Your task to perform on an android device: check out phone information Image 0: 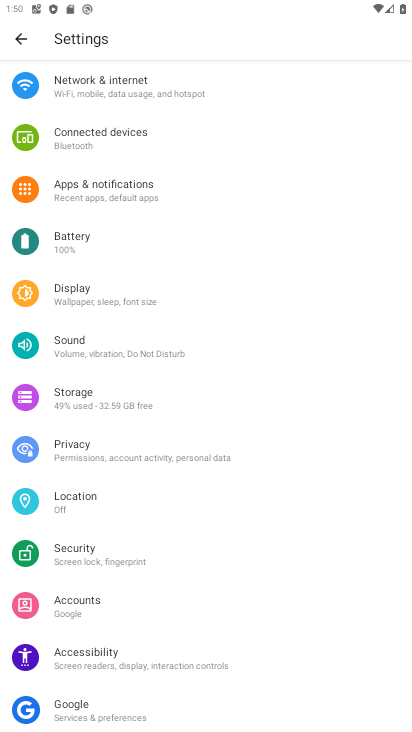
Step 0: drag from (153, 685) to (204, 185)
Your task to perform on an android device: check out phone information Image 1: 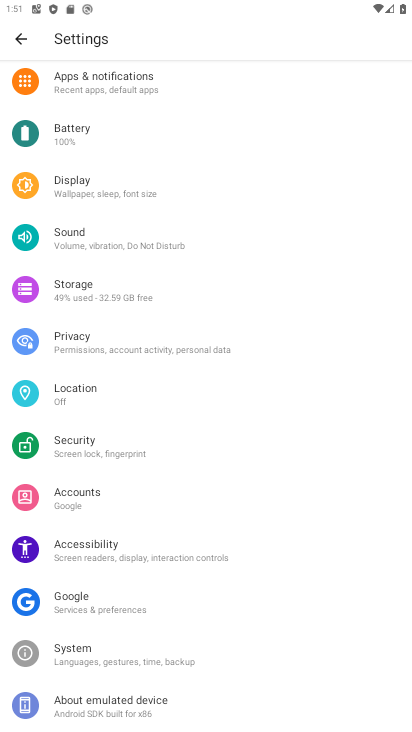
Step 1: click (118, 707)
Your task to perform on an android device: check out phone information Image 2: 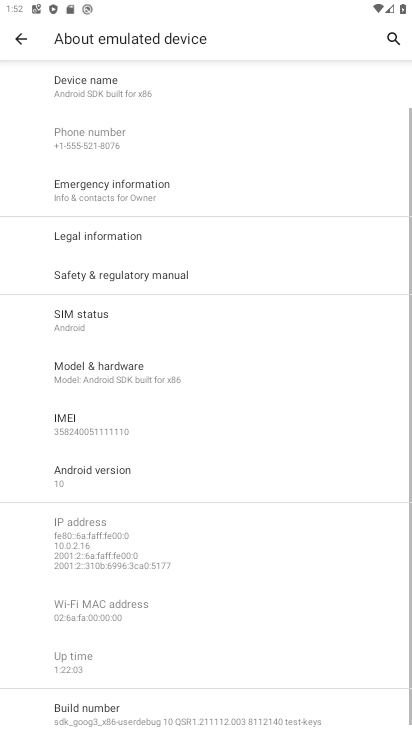
Step 2: task complete